Your task to perform on an android device: What's the weather today? Image 0: 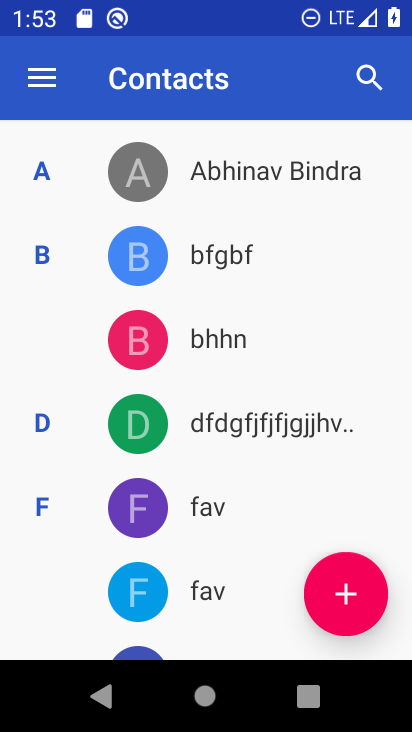
Step 0: press home button
Your task to perform on an android device: What's the weather today? Image 1: 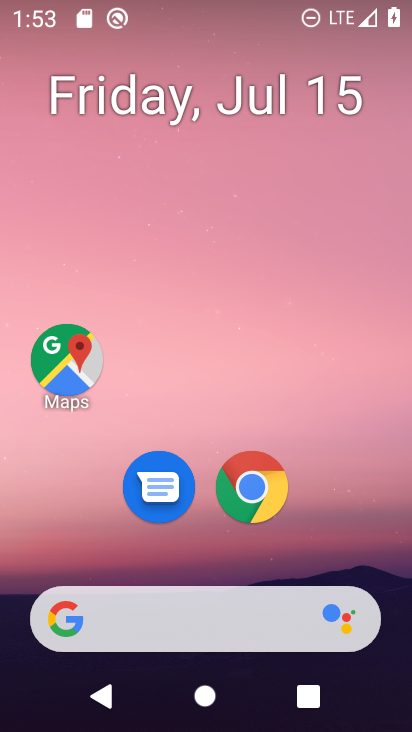
Step 1: drag from (191, 605) to (302, 198)
Your task to perform on an android device: What's the weather today? Image 2: 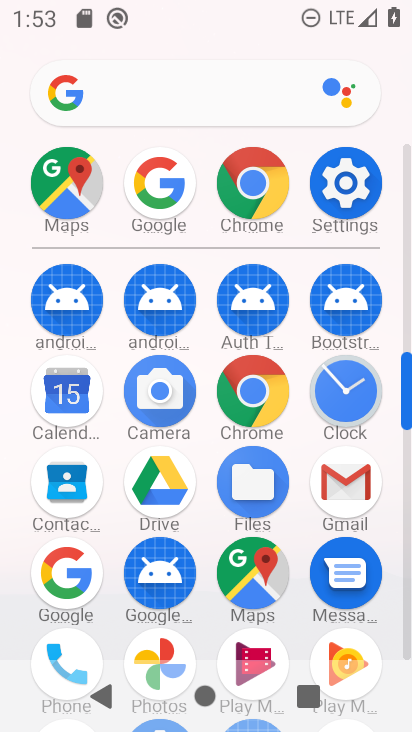
Step 2: click (157, 218)
Your task to perform on an android device: What's the weather today? Image 3: 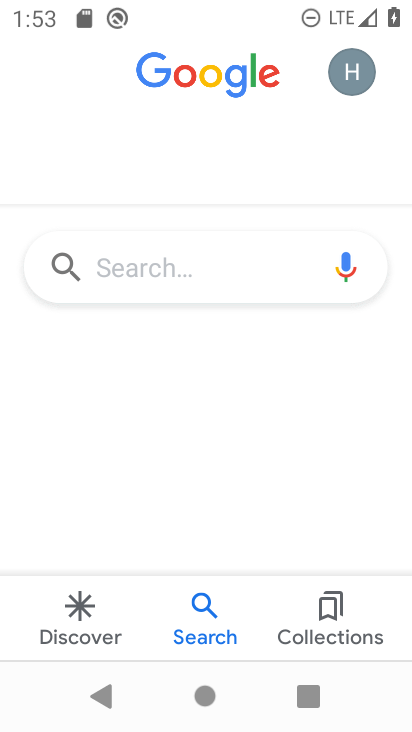
Step 3: click (210, 263)
Your task to perform on an android device: What's the weather today? Image 4: 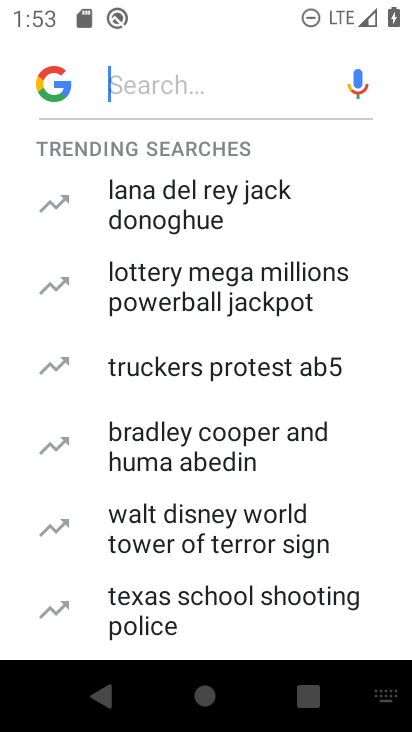
Step 4: type "weather"
Your task to perform on an android device: What's the weather today? Image 5: 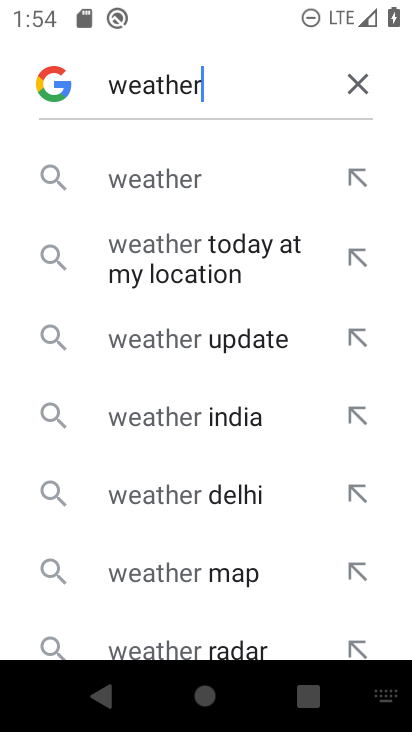
Step 5: click (183, 184)
Your task to perform on an android device: What's the weather today? Image 6: 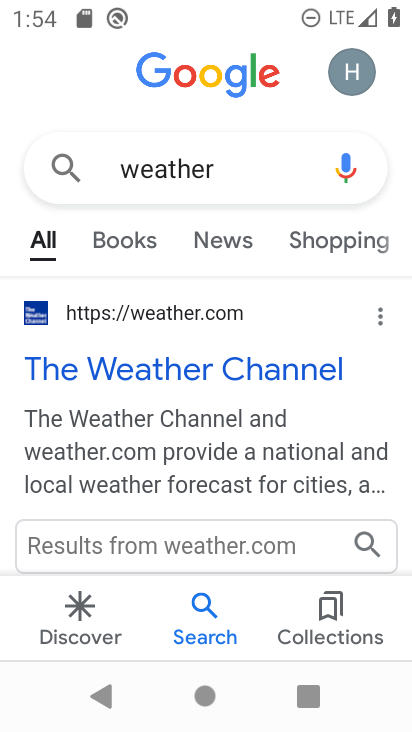
Step 6: click (195, 382)
Your task to perform on an android device: What's the weather today? Image 7: 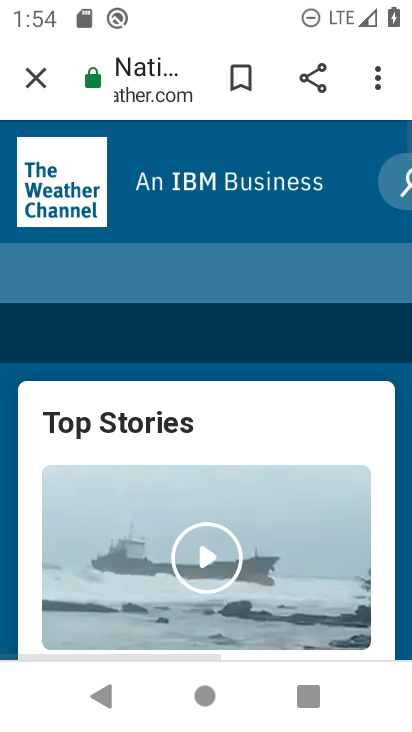
Step 7: task complete